Your task to perform on an android device: turn on sleep mode Image 0: 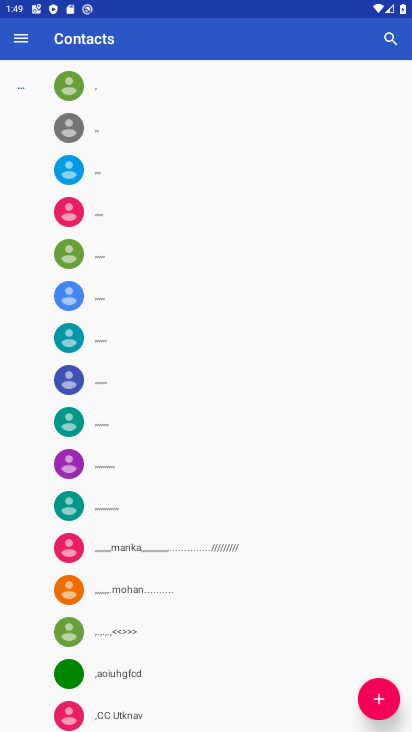
Step 0: press home button
Your task to perform on an android device: turn on sleep mode Image 1: 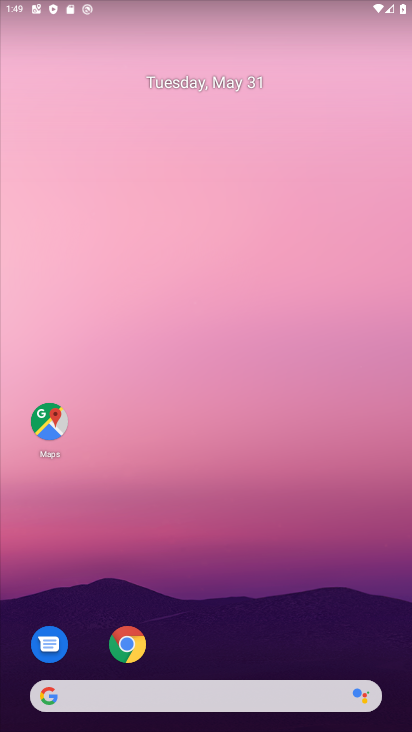
Step 1: drag from (396, 713) to (273, 9)
Your task to perform on an android device: turn on sleep mode Image 2: 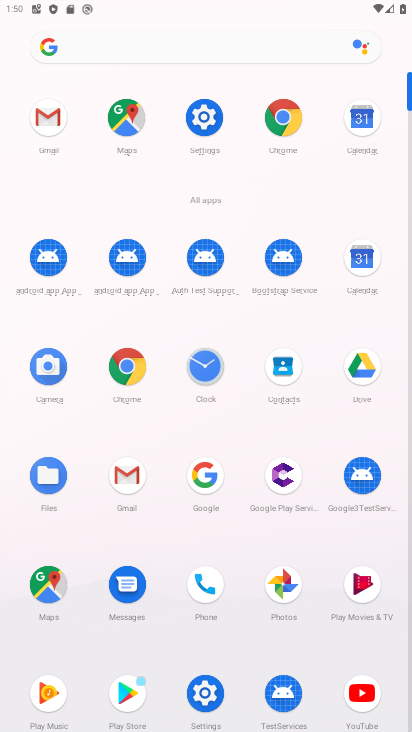
Step 2: click (203, 110)
Your task to perform on an android device: turn on sleep mode Image 3: 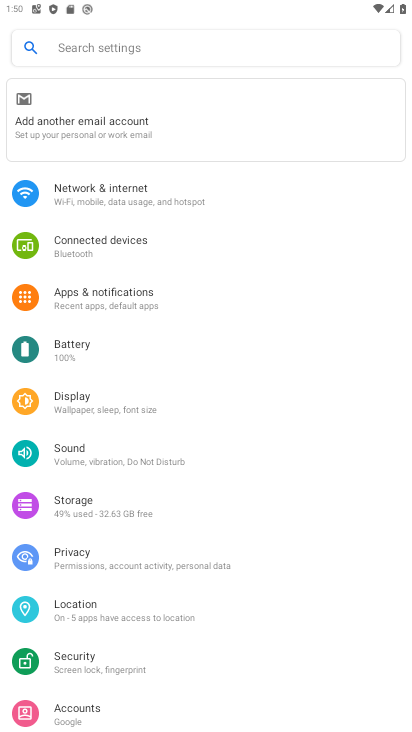
Step 3: click (76, 393)
Your task to perform on an android device: turn on sleep mode Image 4: 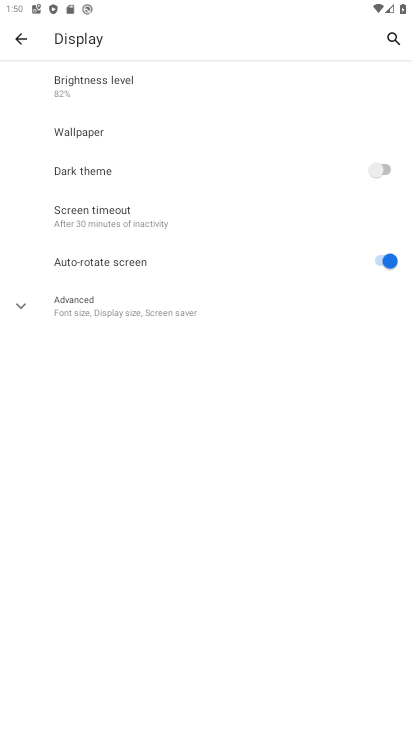
Step 4: drag from (203, 108) to (231, 376)
Your task to perform on an android device: turn on sleep mode Image 5: 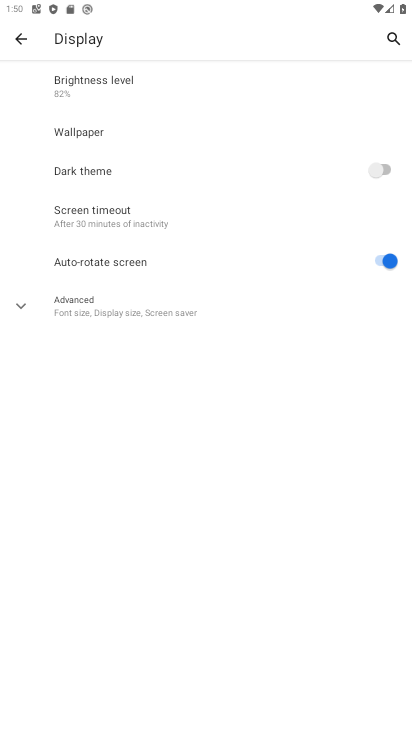
Step 5: click (93, 206)
Your task to perform on an android device: turn on sleep mode Image 6: 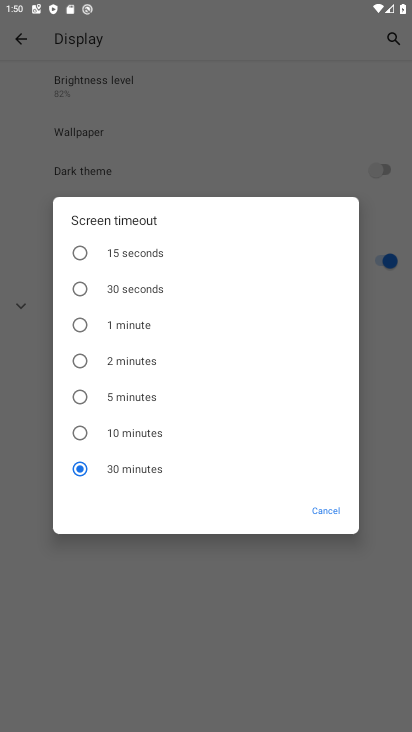
Step 6: task complete